Your task to perform on an android device: open app "Facebook" Image 0: 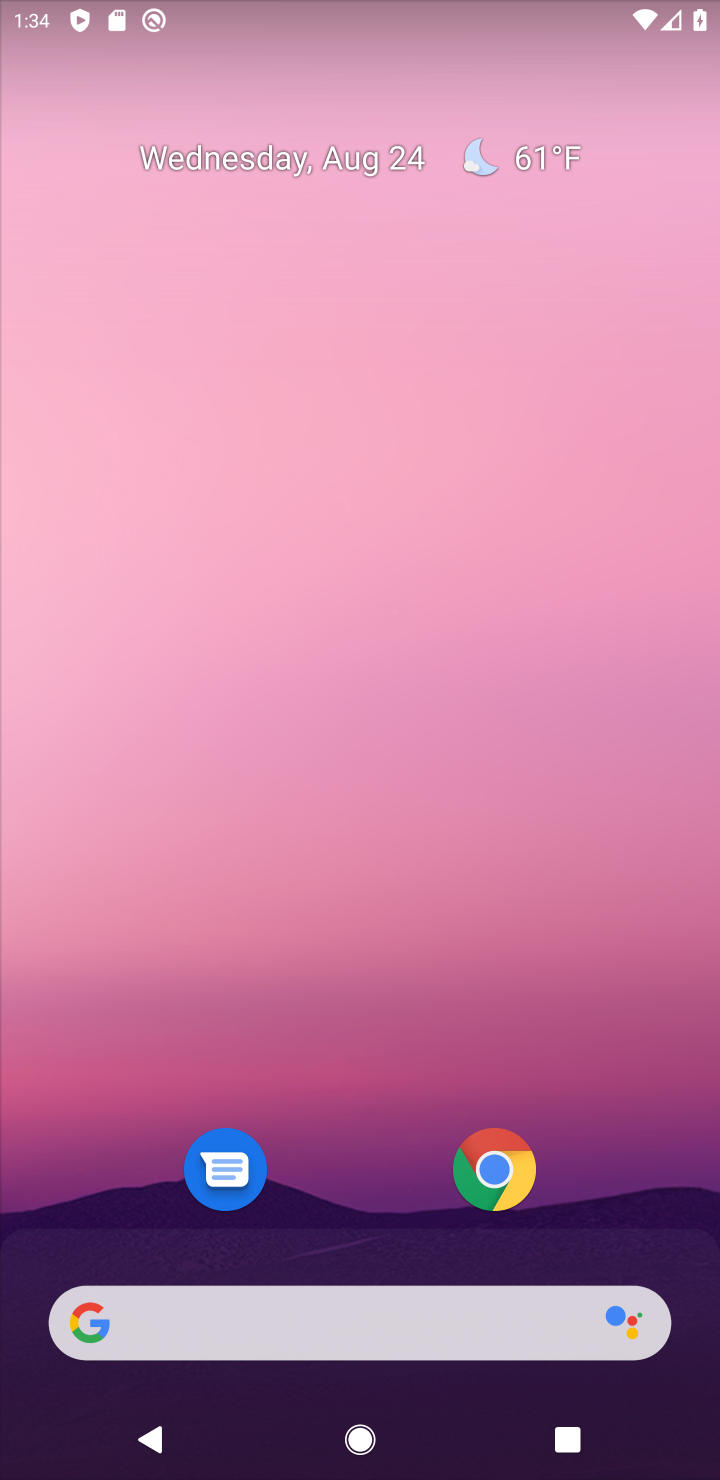
Step 0: drag from (355, 1287) to (157, 0)
Your task to perform on an android device: open app "Facebook" Image 1: 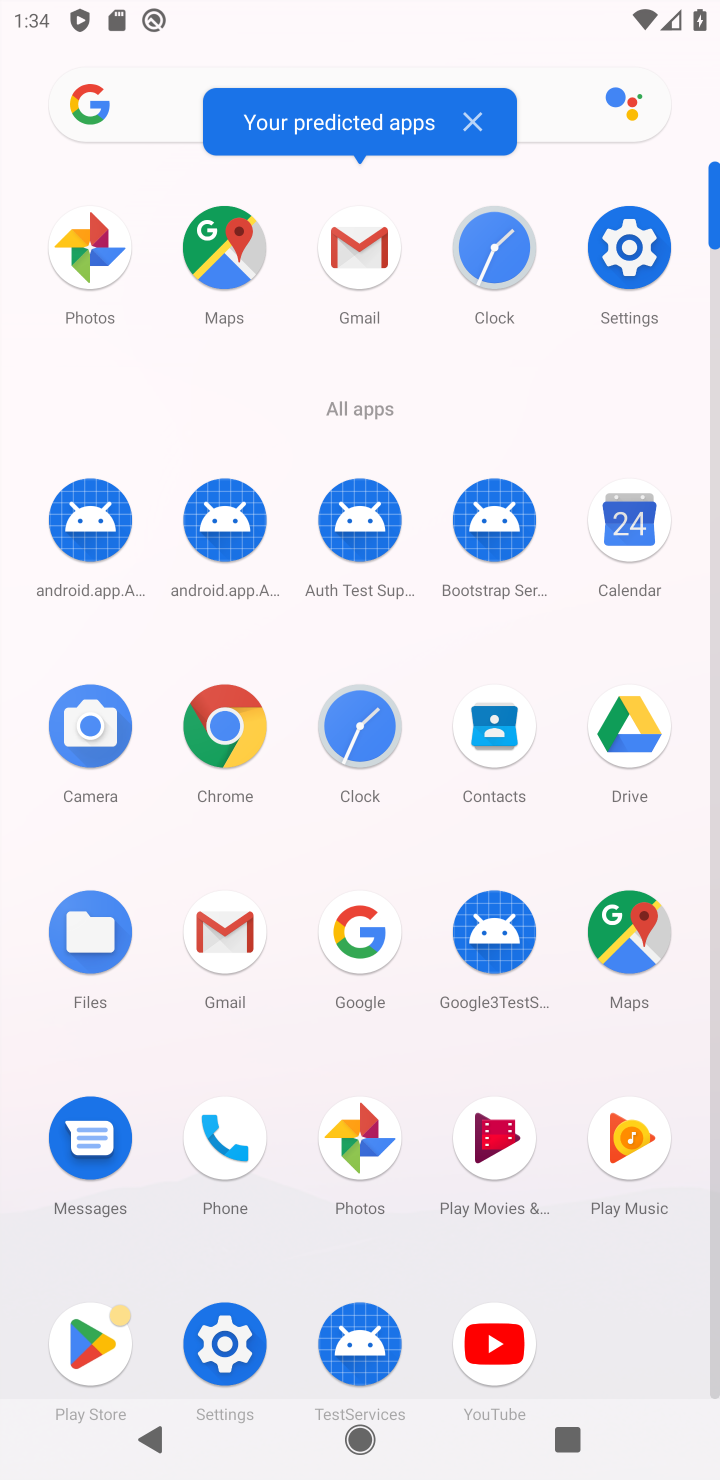
Step 1: click (57, 1331)
Your task to perform on an android device: open app "Facebook" Image 2: 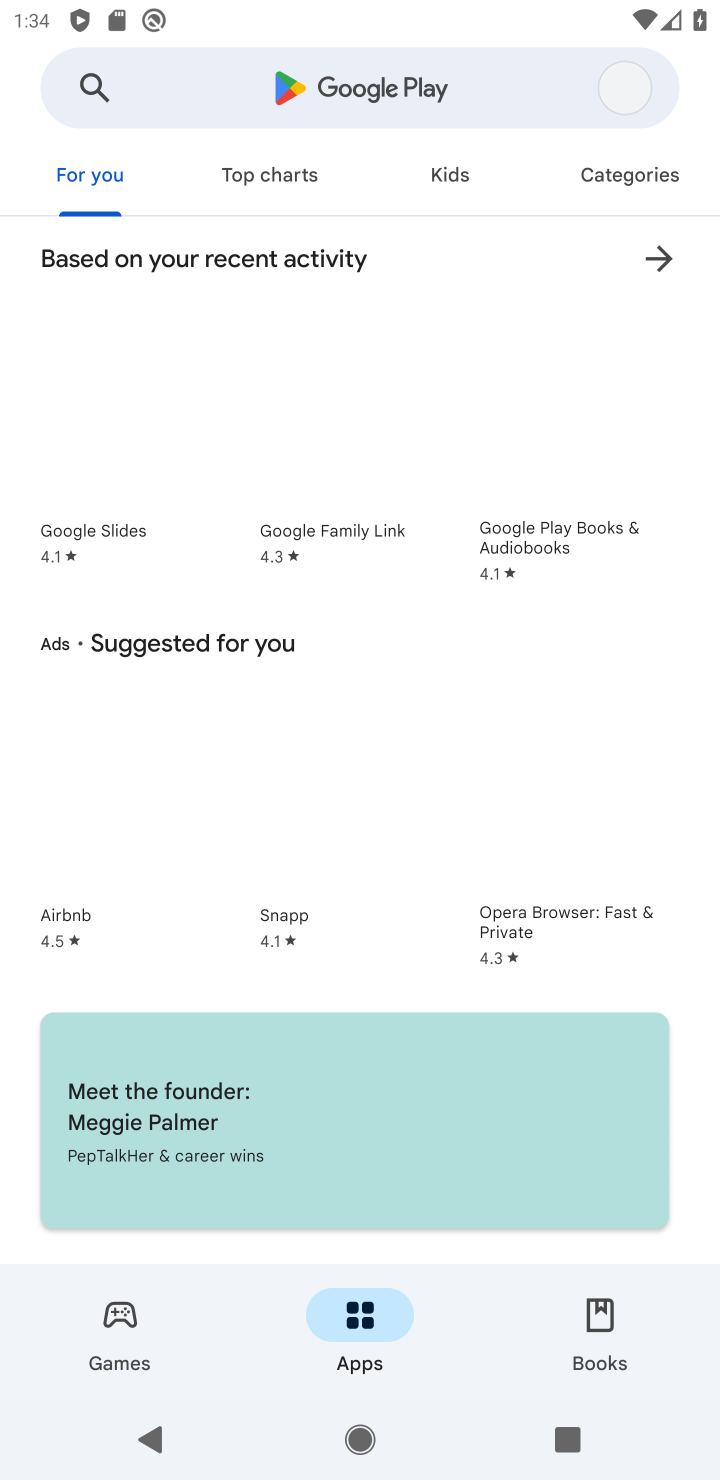
Step 2: click (372, 110)
Your task to perform on an android device: open app "Facebook" Image 3: 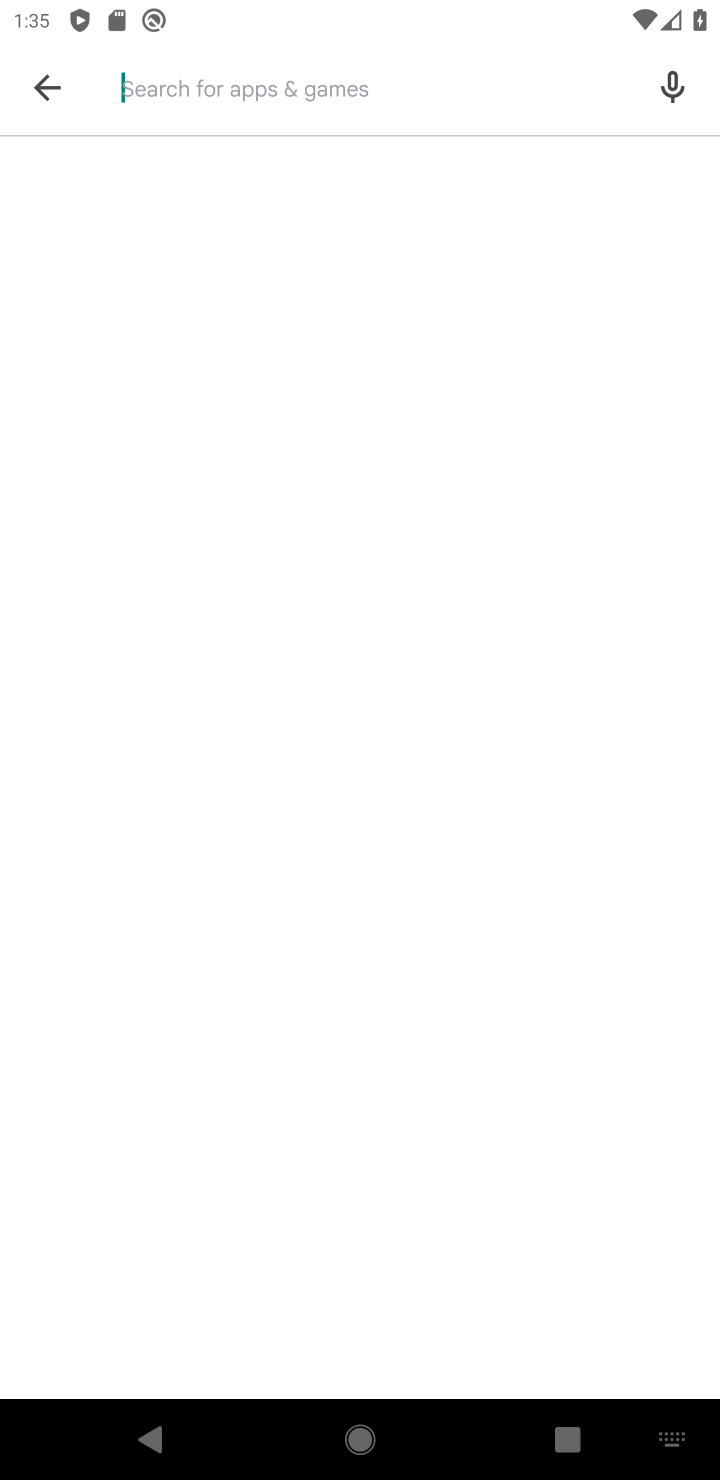
Step 3: type "Facebook"
Your task to perform on an android device: open app "Facebook" Image 4: 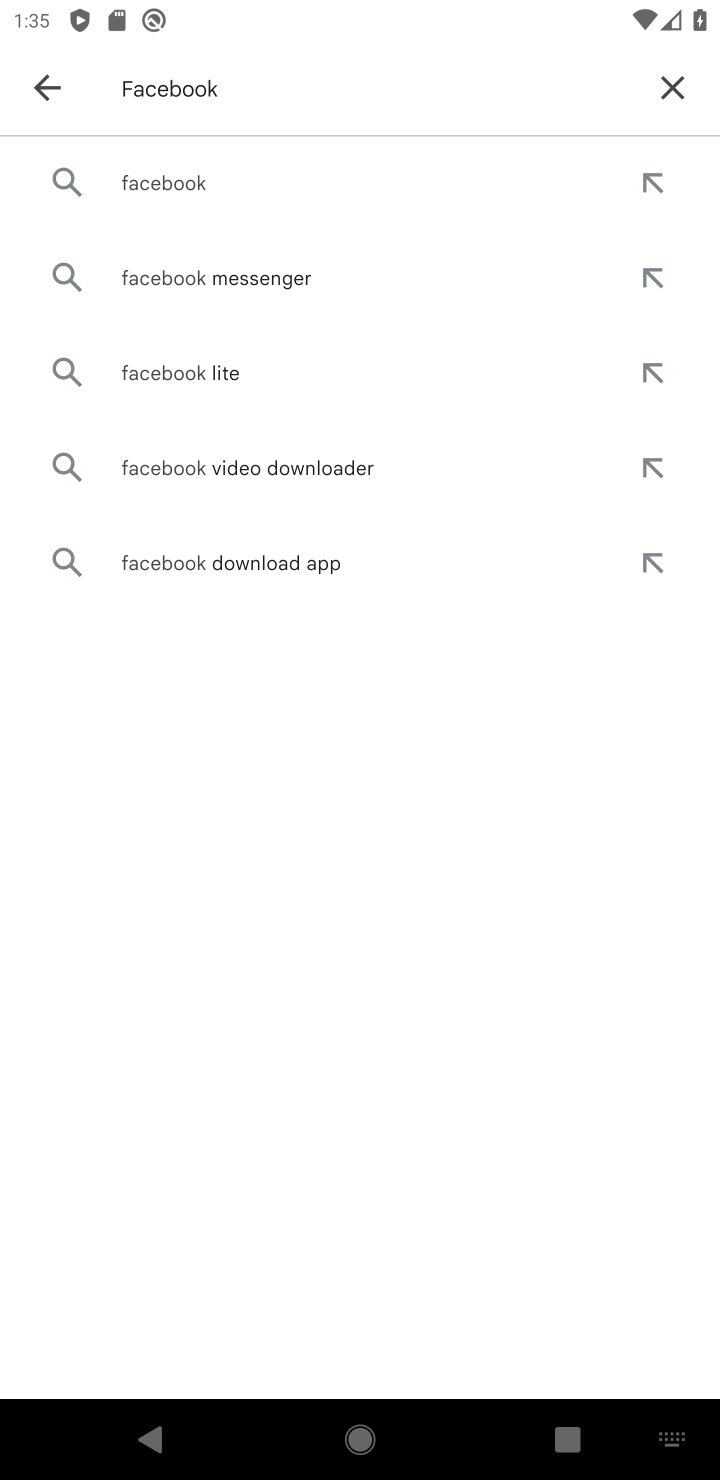
Step 4: click (177, 203)
Your task to perform on an android device: open app "Facebook" Image 5: 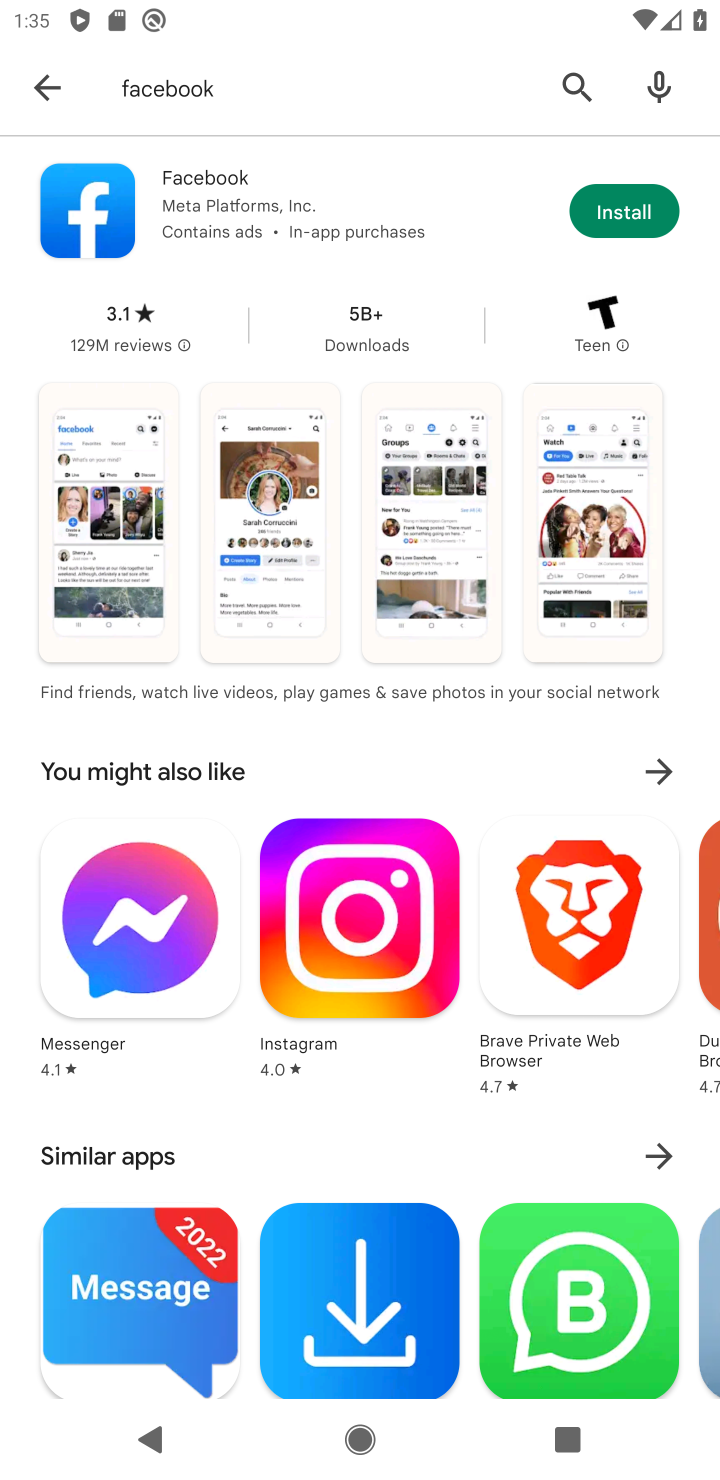
Step 5: task complete